Your task to perform on an android device: Search for Mexican restaurants on Maps Image 0: 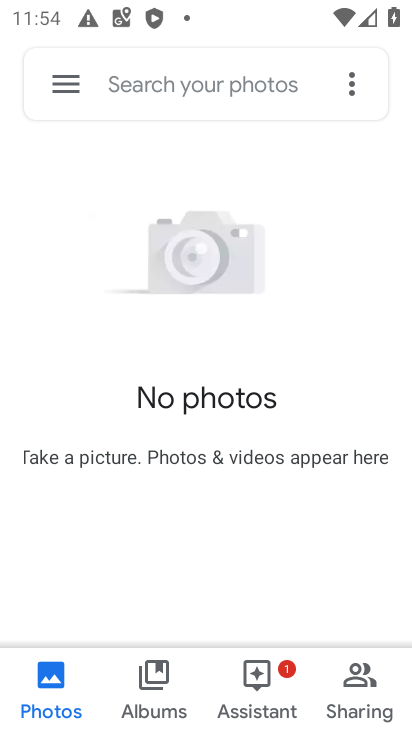
Step 0: press home button
Your task to perform on an android device: Search for Mexican restaurants on Maps Image 1: 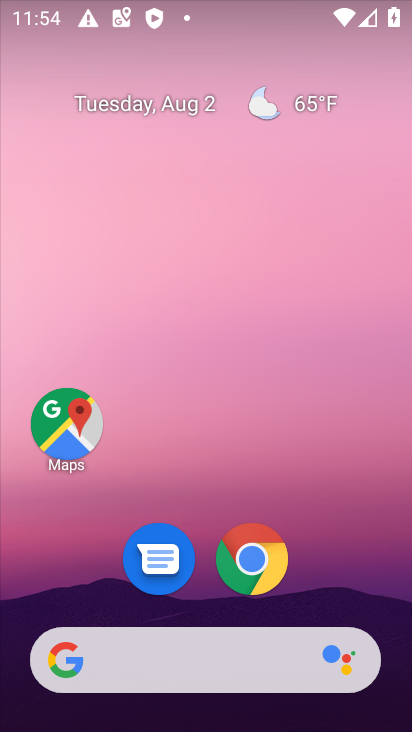
Step 1: drag from (209, 475) to (205, 65)
Your task to perform on an android device: Search for Mexican restaurants on Maps Image 2: 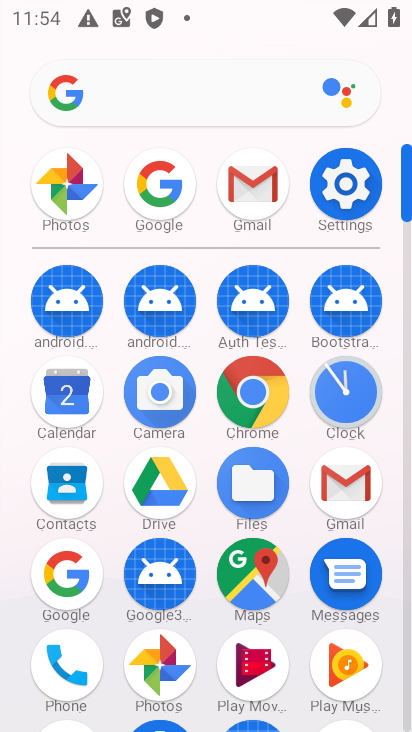
Step 2: click (251, 563)
Your task to perform on an android device: Search for Mexican restaurants on Maps Image 3: 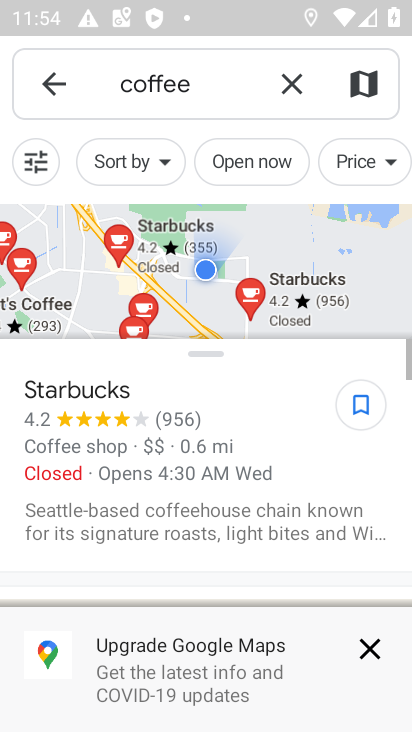
Step 3: click (295, 77)
Your task to perform on an android device: Search for Mexican restaurants on Maps Image 4: 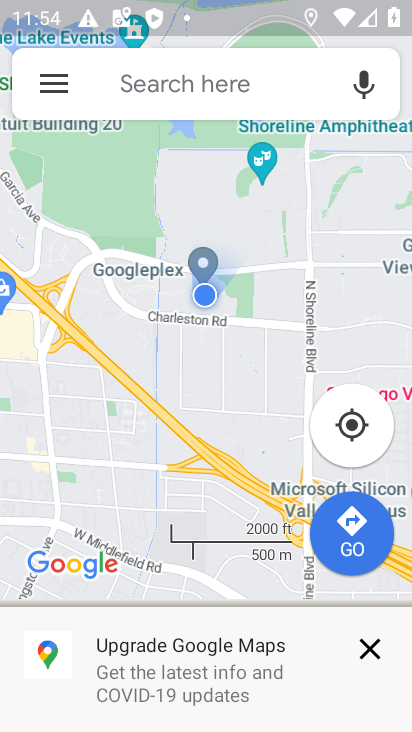
Step 4: click (224, 86)
Your task to perform on an android device: Search for Mexican restaurants on Maps Image 5: 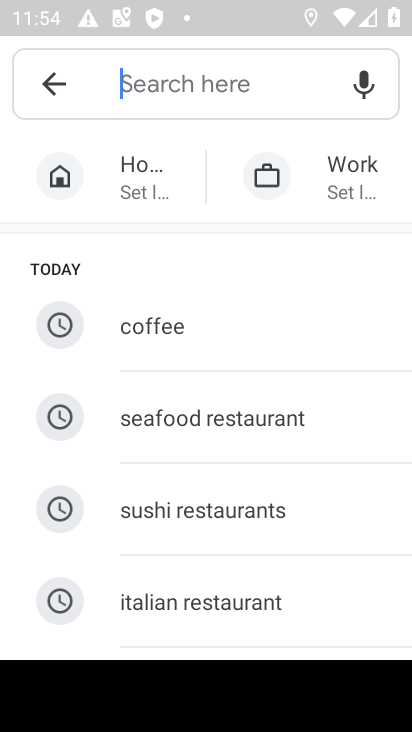
Step 5: type "mexican restaurants"
Your task to perform on an android device: Search for Mexican restaurants on Maps Image 6: 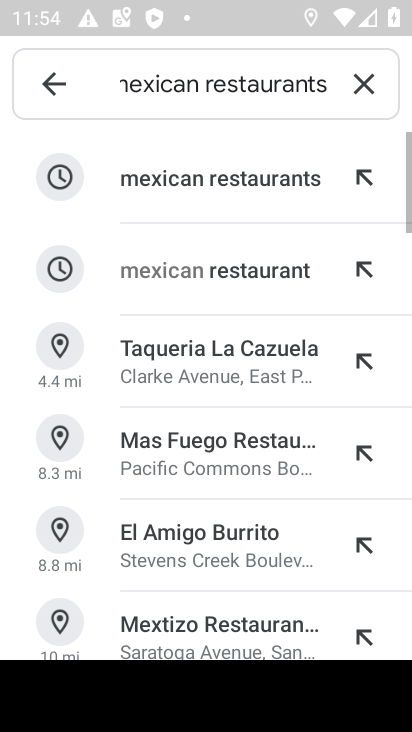
Step 6: click (233, 182)
Your task to perform on an android device: Search for Mexican restaurants on Maps Image 7: 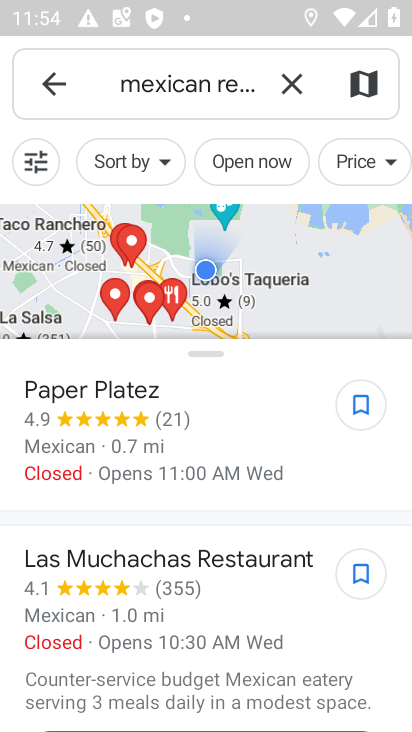
Step 7: task complete